Your task to perform on an android device: toggle priority inbox in the gmail app Image 0: 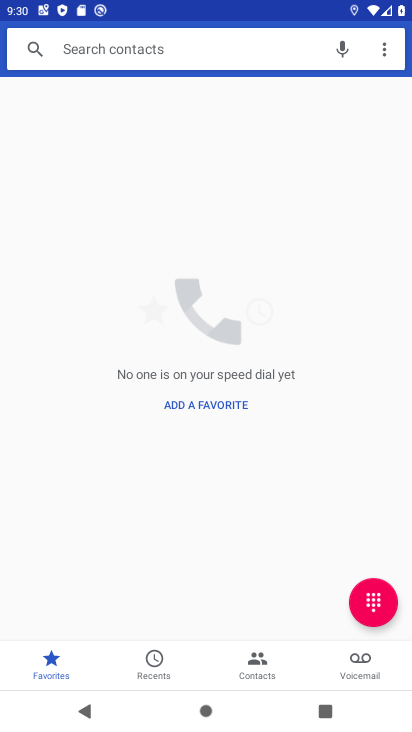
Step 0: press back button
Your task to perform on an android device: toggle priority inbox in the gmail app Image 1: 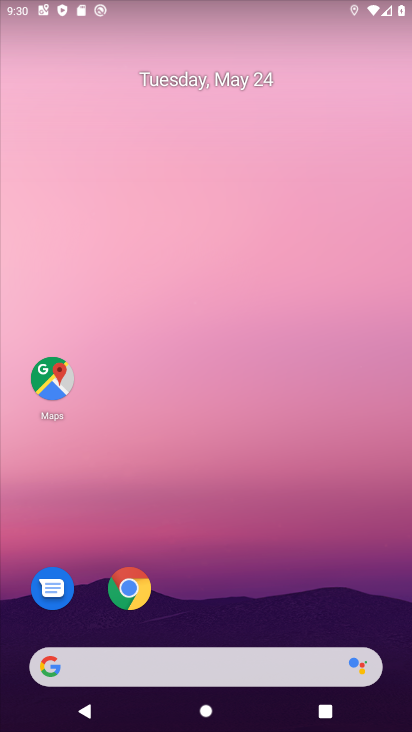
Step 1: drag from (247, 577) to (126, 13)
Your task to perform on an android device: toggle priority inbox in the gmail app Image 2: 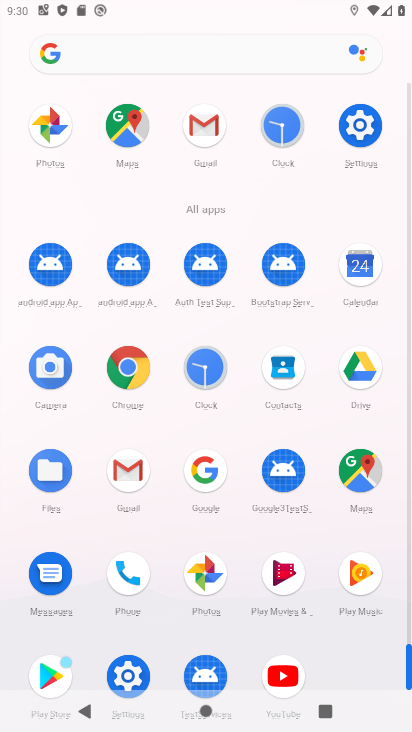
Step 2: drag from (12, 596) to (6, 246)
Your task to perform on an android device: toggle priority inbox in the gmail app Image 3: 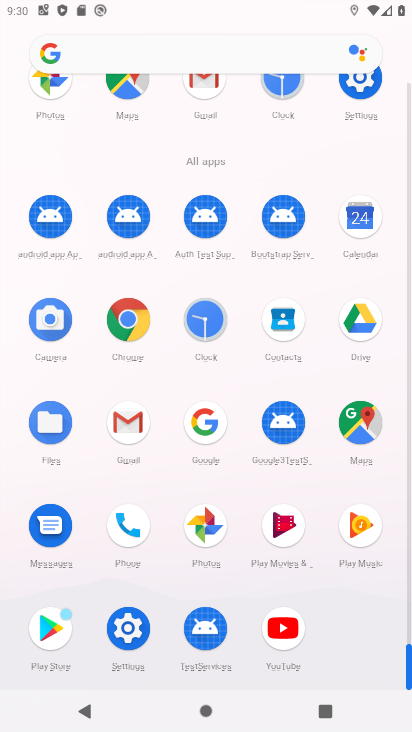
Step 3: click (127, 412)
Your task to perform on an android device: toggle priority inbox in the gmail app Image 4: 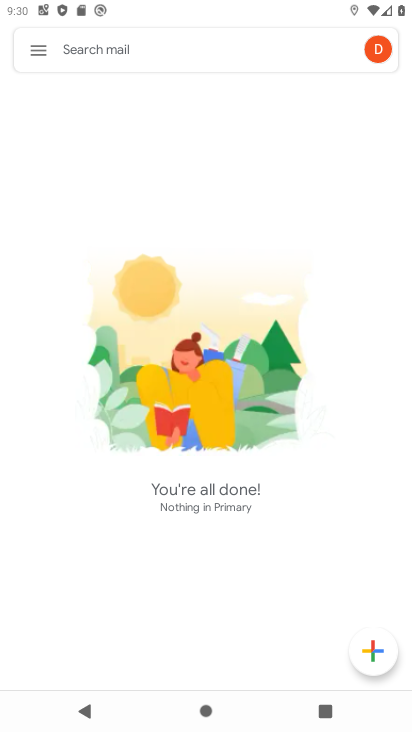
Step 4: click (25, 43)
Your task to perform on an android device: toggle priority inbox in the gmail app Image 5: 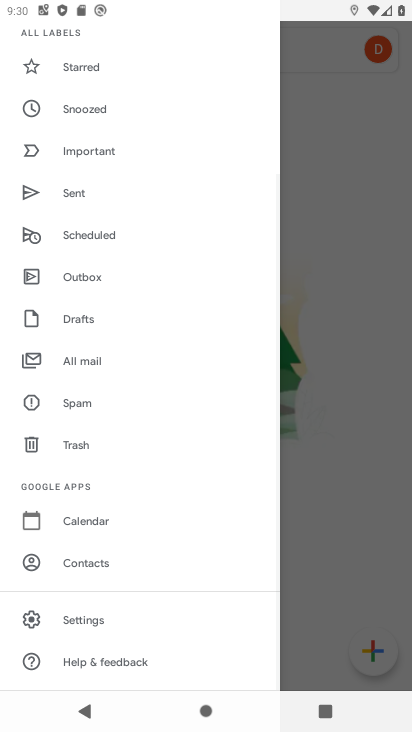
Step 5: click (85, 619)
Your task to perform on an android device: toggle priority inbox in the gmail app Image 6: 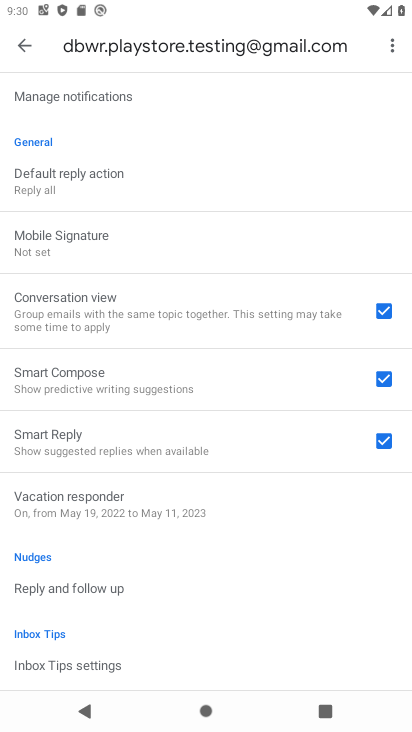
Step 6: drag from (208, 212) to (233, 604)
Your task to perform on an android device: toggle priority inbox in the gmail app Image 7: 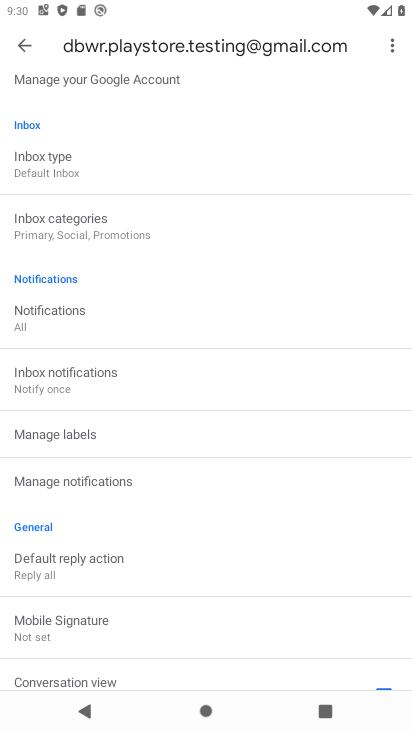
Step 7: click (105, 165)
Your task to perform on an android device: toggle priority inbox in the gmail app Image 8: 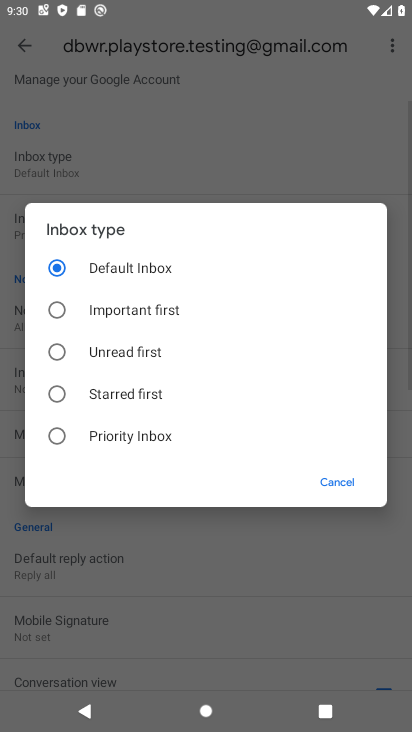
Step 8: click (133, 438)
Your task to perform on an android device: toggle priority inbox in the gmail app Image 9: 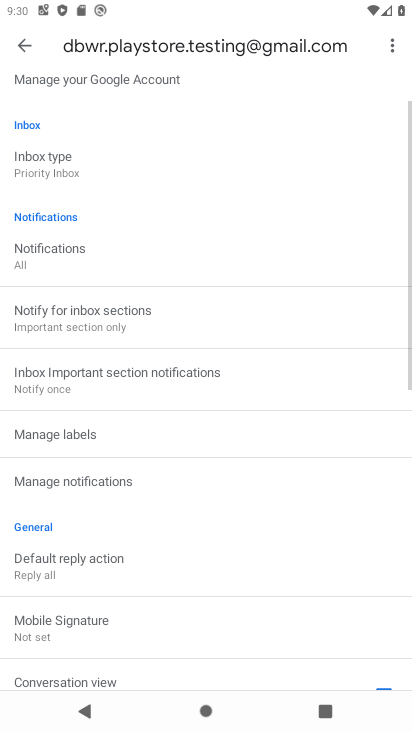
Step 9: task complete